Your task to perform on an android device: change alarm snooze length Image 0: 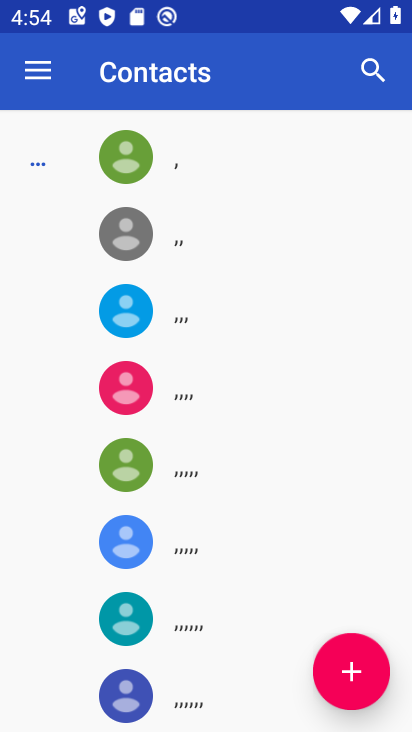
Step 0: press back button
Your task to perform on an android device: change alarm snooze length Image 1: 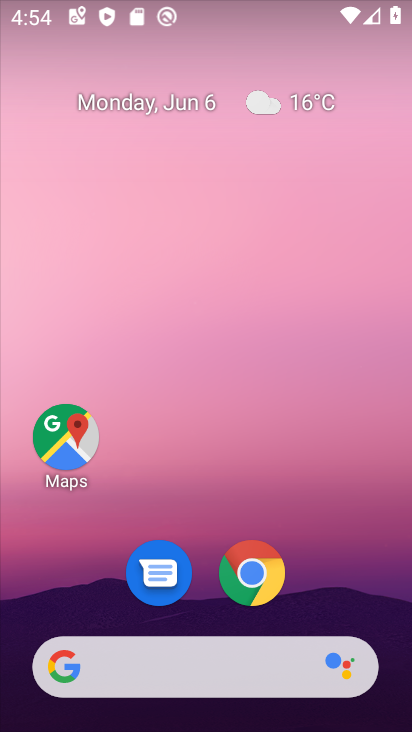
Step 1: drag from (354, 569) to (332, 73)
Your task to perform on an android device: change alarm snooze length Image 2: 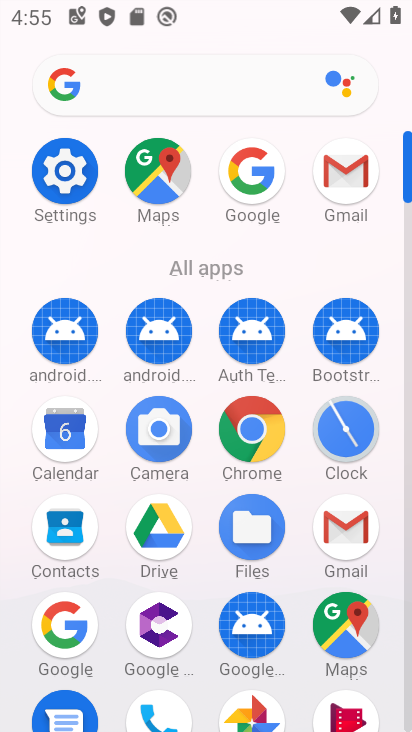
Step 2: click (344, 427)
Your task to perform on an android device: change alarm snooze length Image 3: 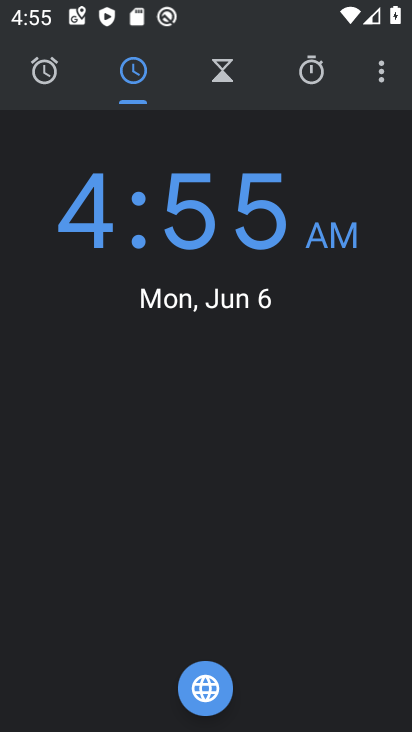
Step 3: click (386, 75)
Your task to perform on an android device: change alarm snooze length Image 4: 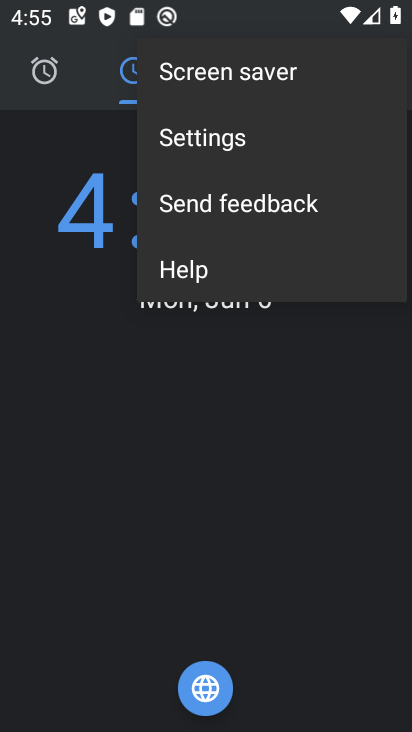
Step 4: click (231, 144)
Your task to perform on an android device: change alarm snooze length Image 5: 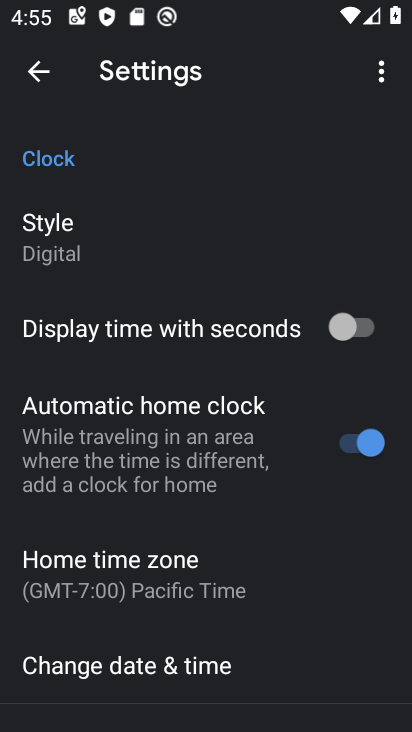
Step 5: drag from (192, 535) to (215, 380)
Your task to perform on an android device: change alarm snooze length Image 6: 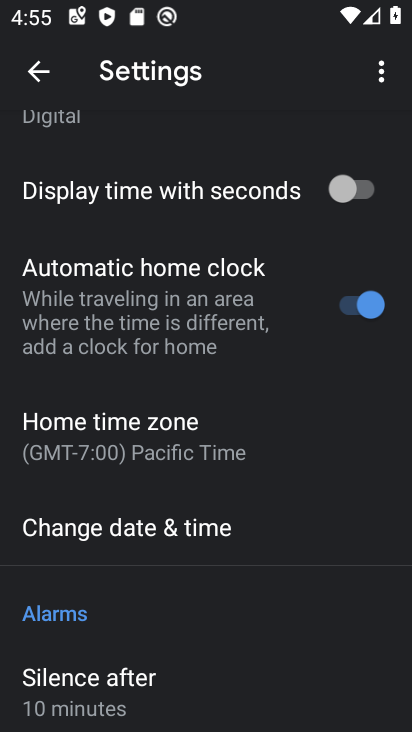
Step 6: drag from (209, 597) to (263, 370)
Your task to perform on an android device: change alarm snooze length Image 7: 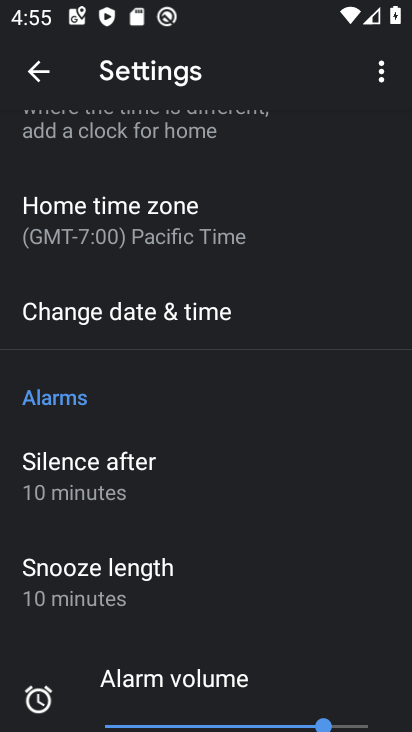
Step 7: drag from (209, 596) to (252, 513)
Your task to perform on an android device: change alarm snooze length Image 8: 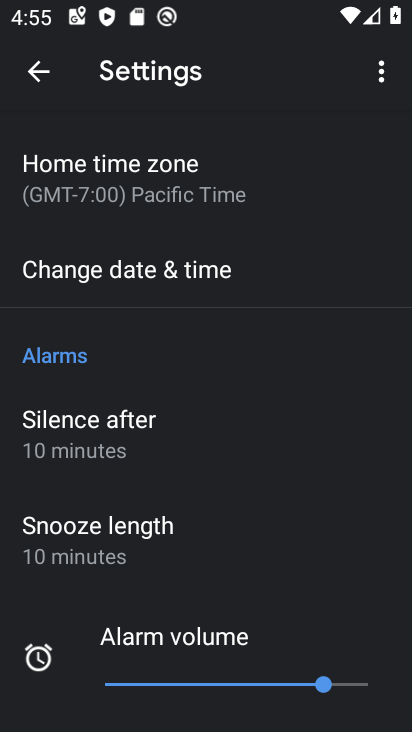
Step 8: click (189, 530)
Your task to perform on an android device: change alarm snooze length Image 9: 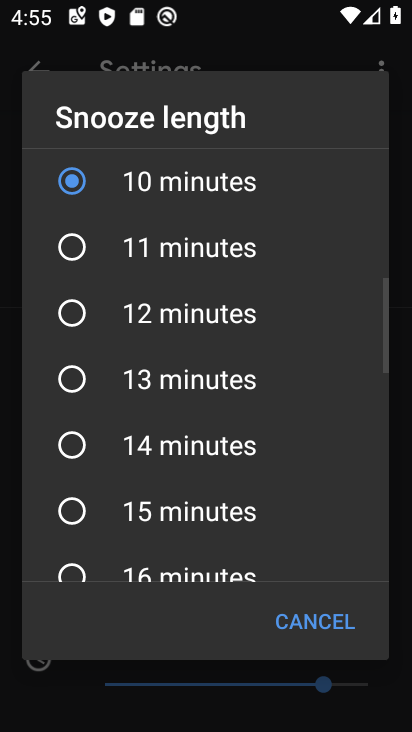
Step 9: drag from (189, 526) to (273, 266)
Your task to perform on an android device: change alarm snooze length Image 10: 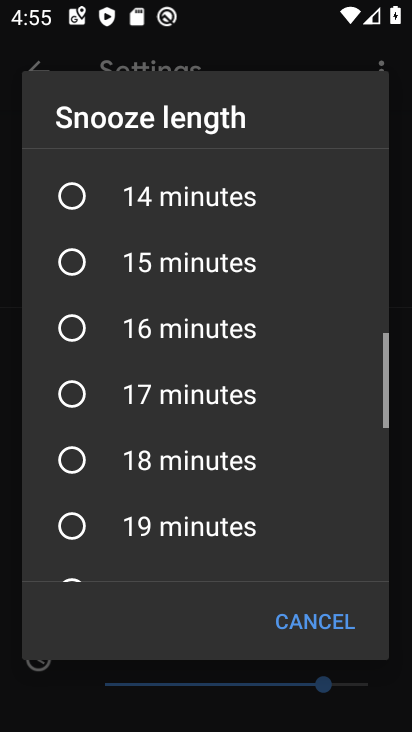
Step 10: click (156, 456)
Your task to perform on an android device: change alarm snooze length Image 11: 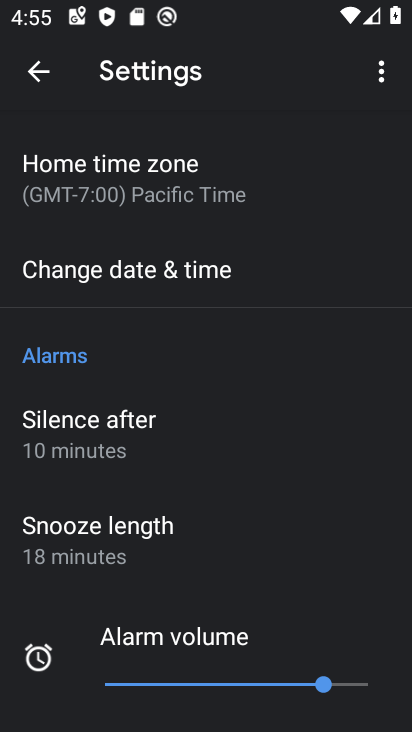
Step 11: task complete